Your task to perform on an android device: Open ESPN.com Image 0: 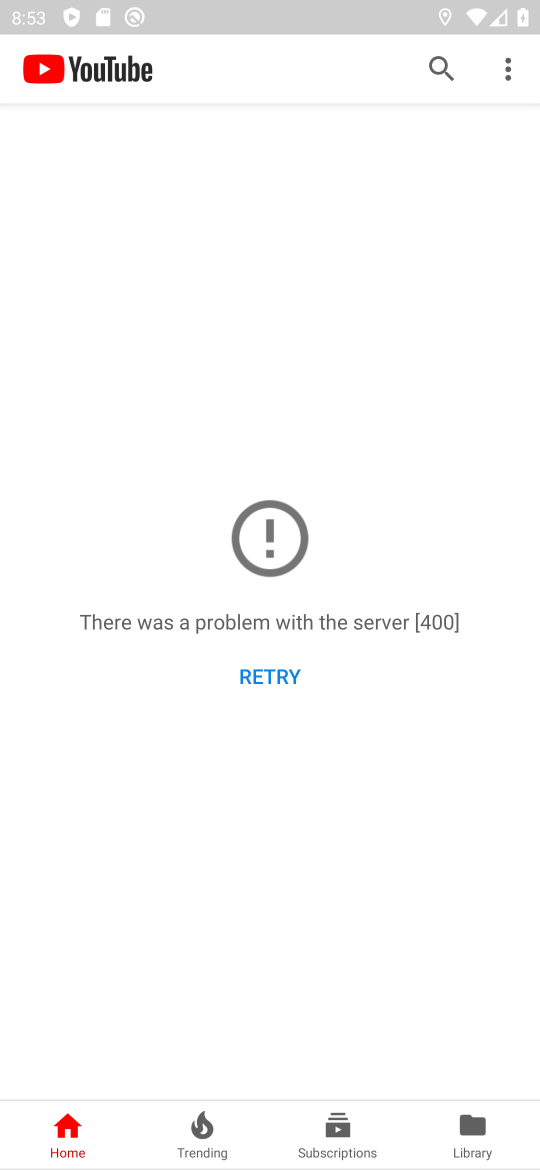
Step 0: press home button
Your task to perform on an android device: Open ESPN.com Image 1: 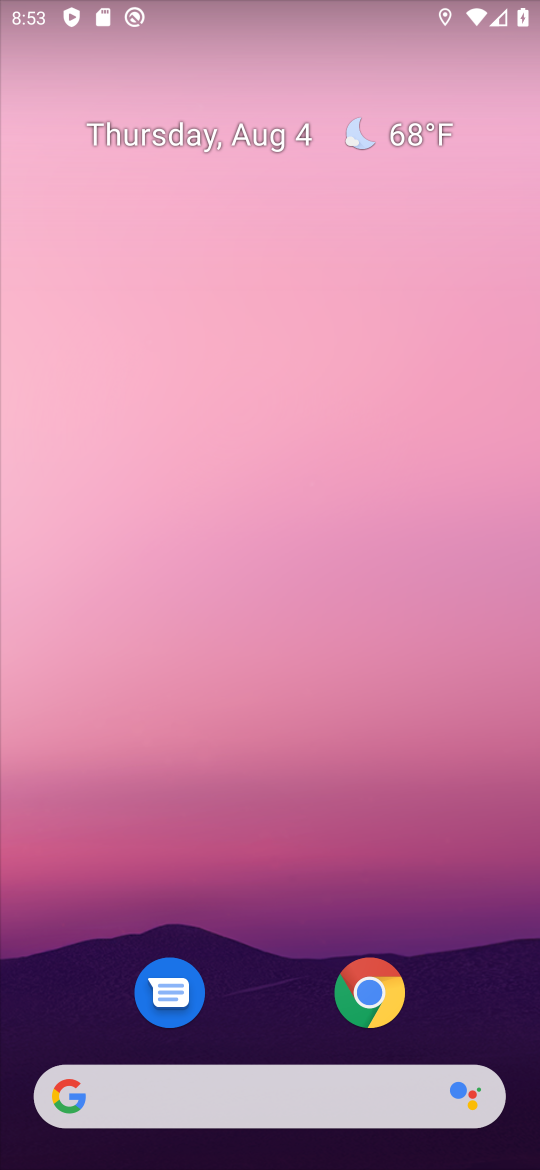
Step 1: click (364, 1003)
Your task to perform on an android device: Open ESPN.com Image 2: 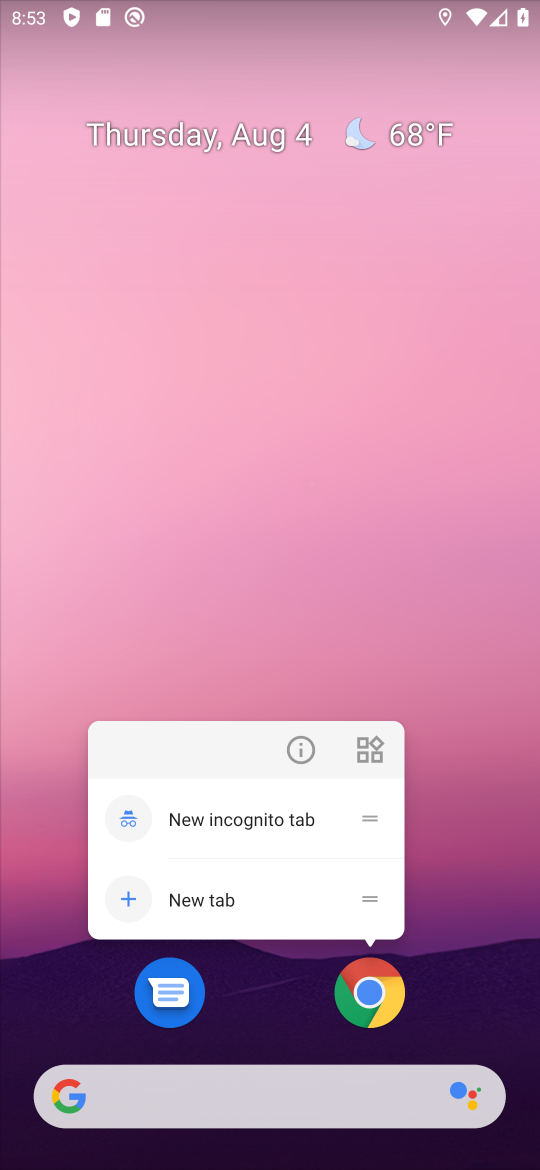
Step 2: click (374, 986)
Your task to perform on an android device: Open ESPN.com Image 3: 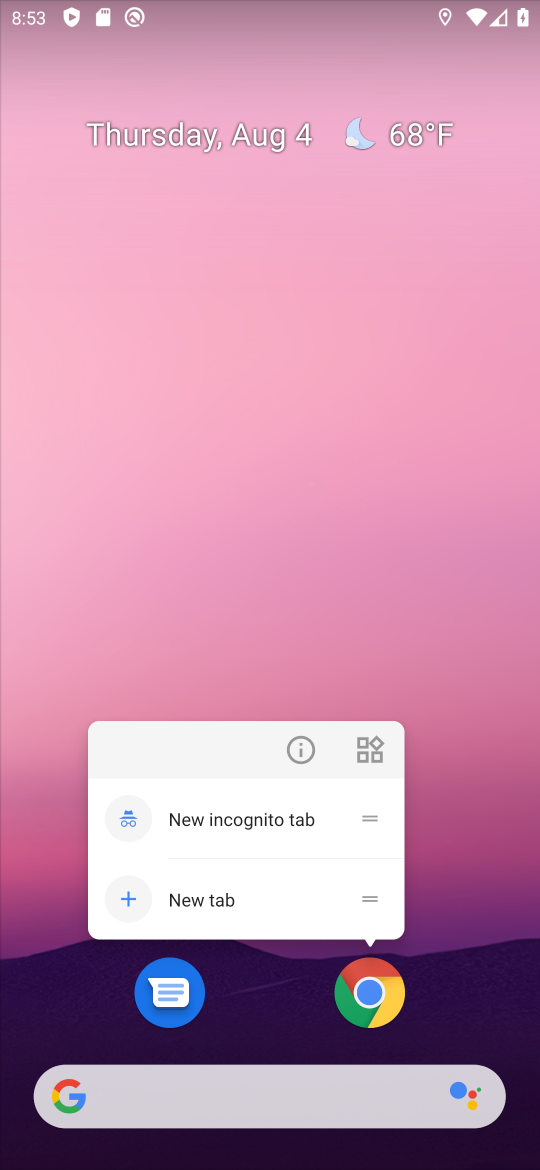
Step 3: click (374, 986)
Your task to perform on an android device: Open ESPN.com Image 4: 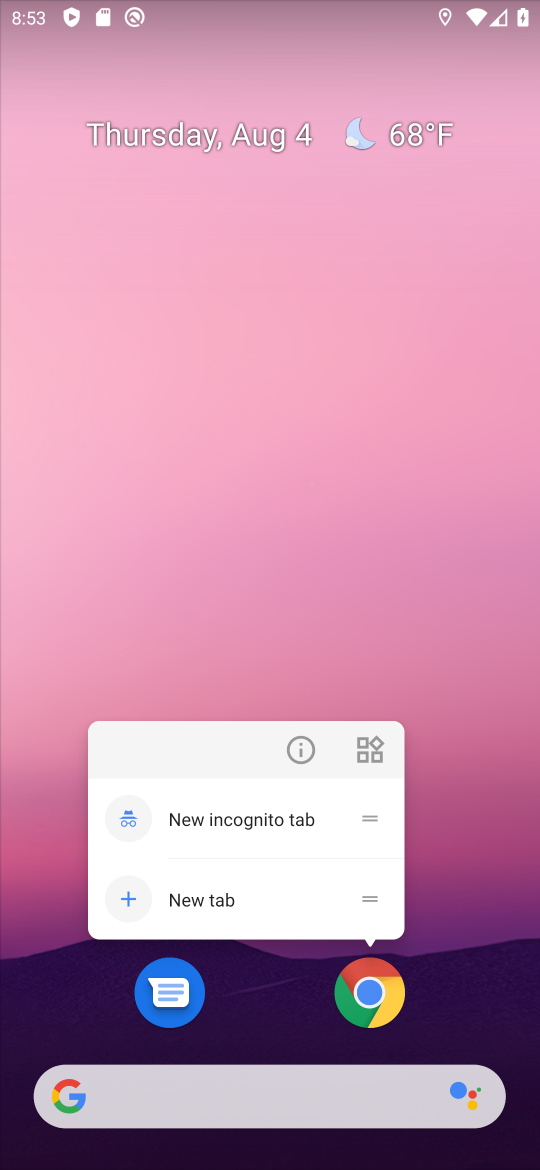
Step 4: click (374, 986)
Your task to perform on an android device: Open ESPN.com Image 5: 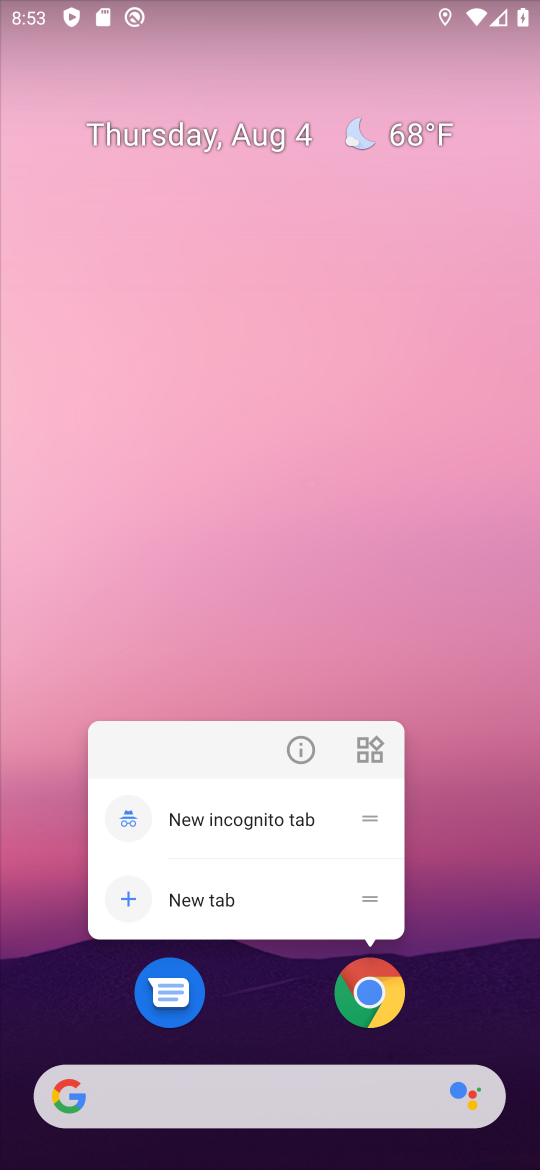
Step 5: click (339, 1005)
Your task to perform on an android device: Open ESPN.com Image 6: 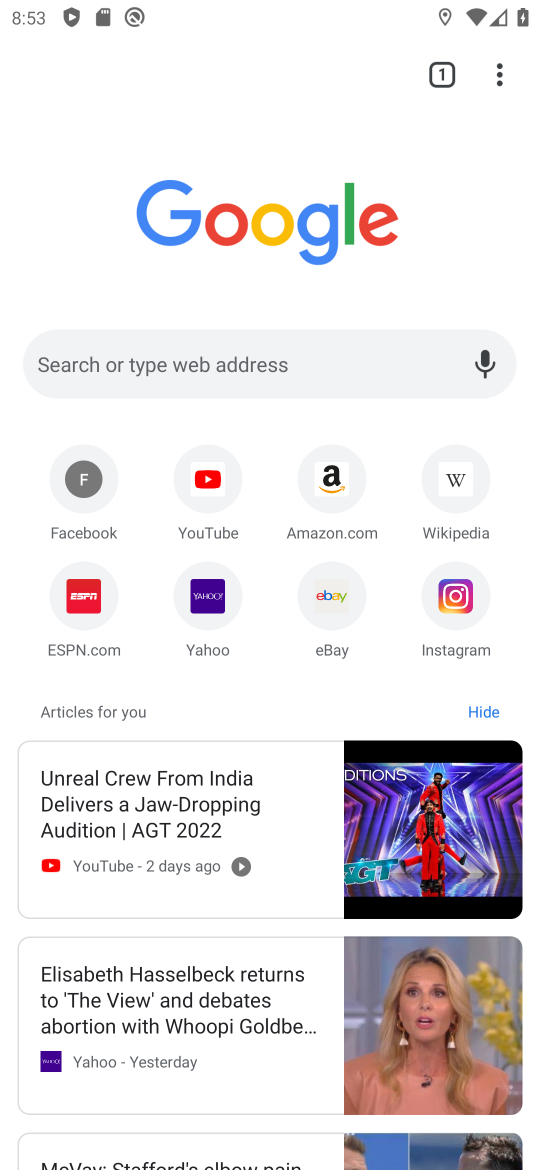
Step 6: click (78, 612)
Your task to perform on an android device: Open ESPN.com Image 7: 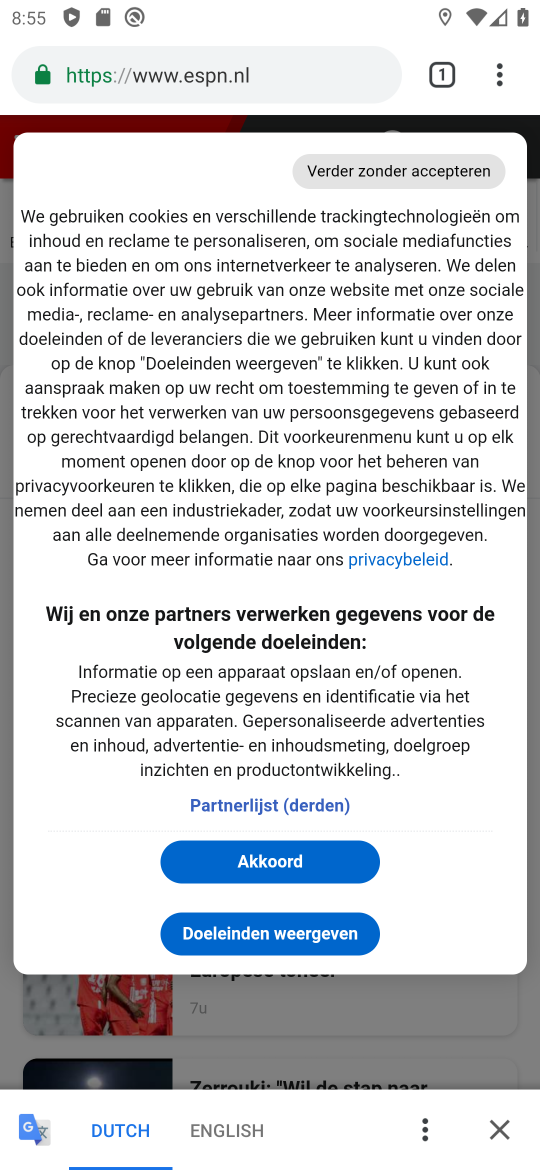
Step 7: task complete